Your task to perform on an android device: Go to Google maps Image 0: 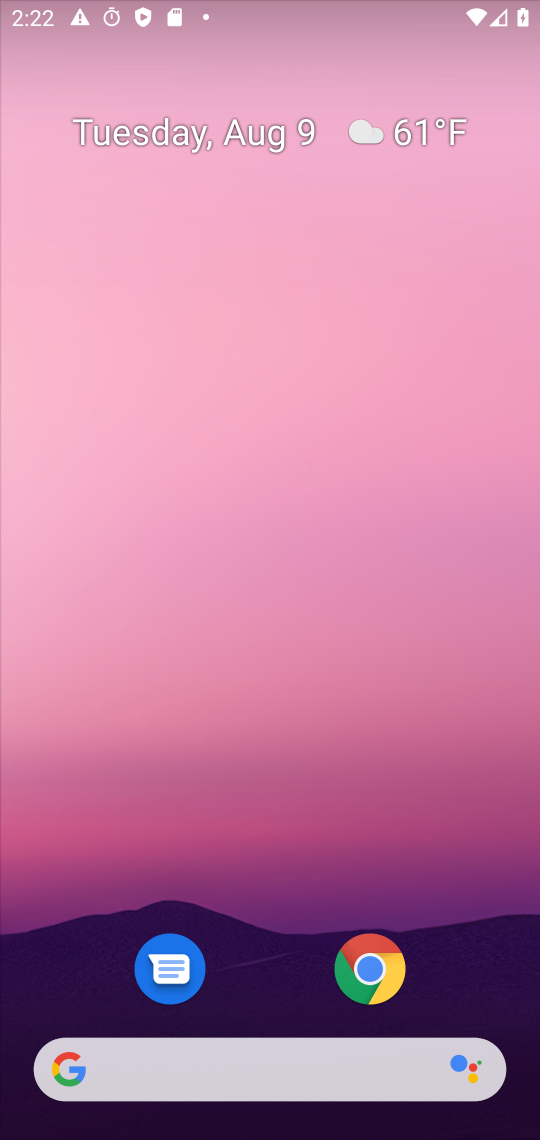
Step 0: press home button
Your task to perform on an android device: Go to Google maps Image 1: 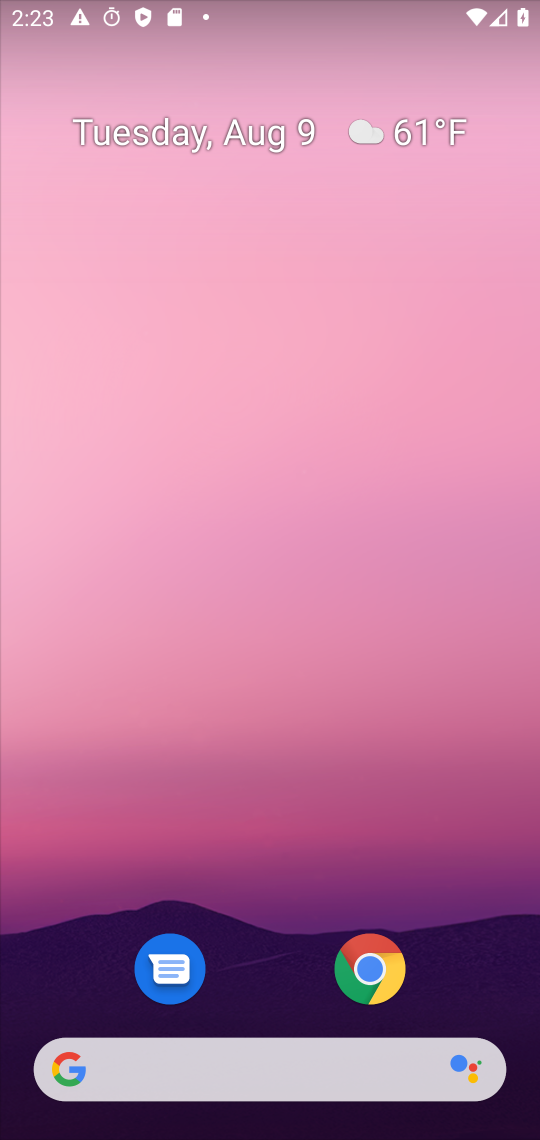
Step 1: drag from (369, 1057) to (271, 406)
Your task to perform on an android device: Go to Google maps Image 2: 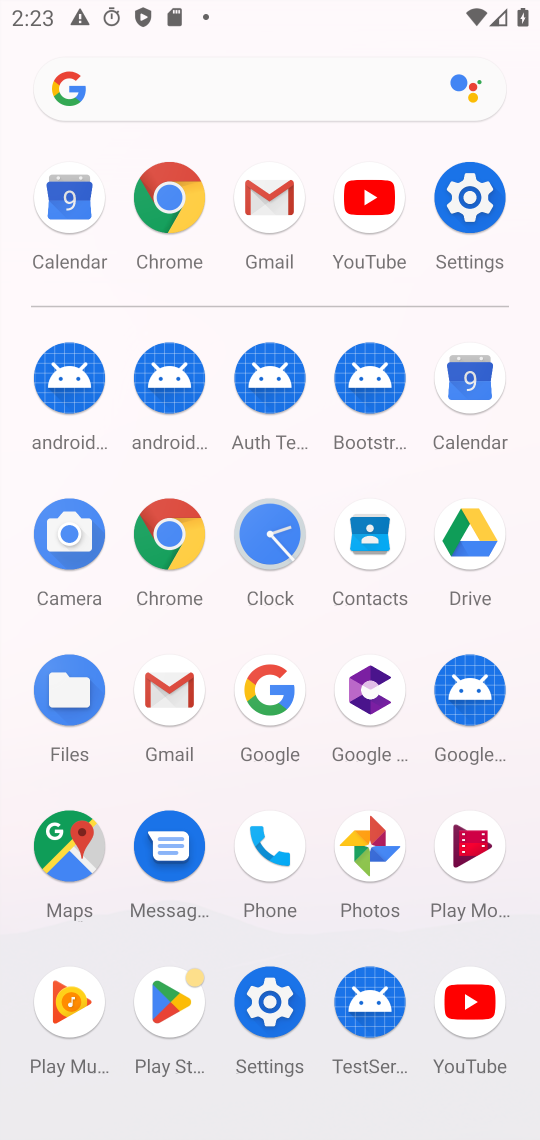
Step 2: click (32, 798)
Your task to perform on an android device: Go to Google maps Image 3: 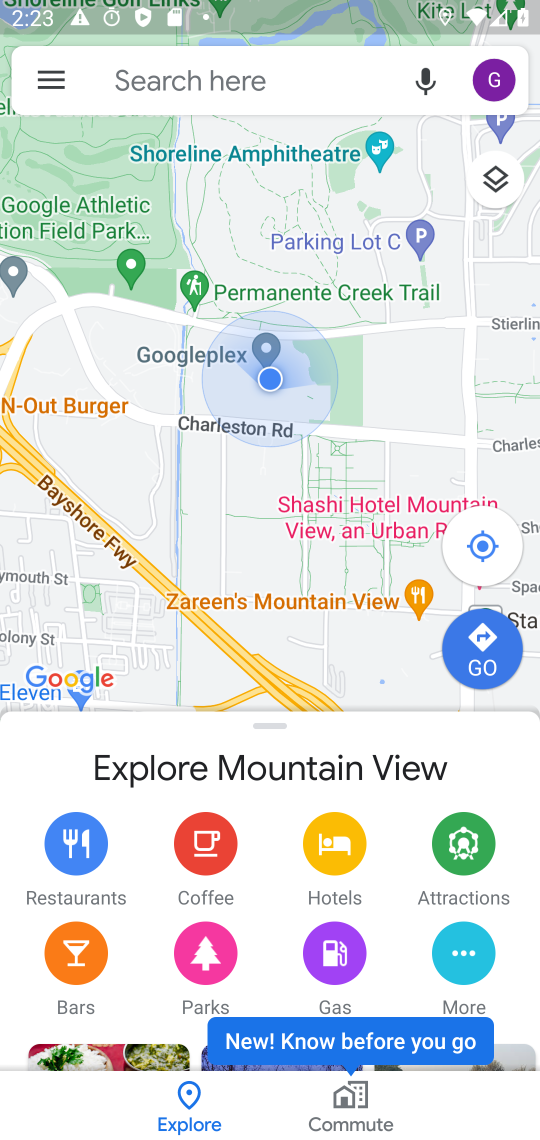
Step 3: click (479, 541)
Your task to perform on an android device: Go to Google maps Image 4: 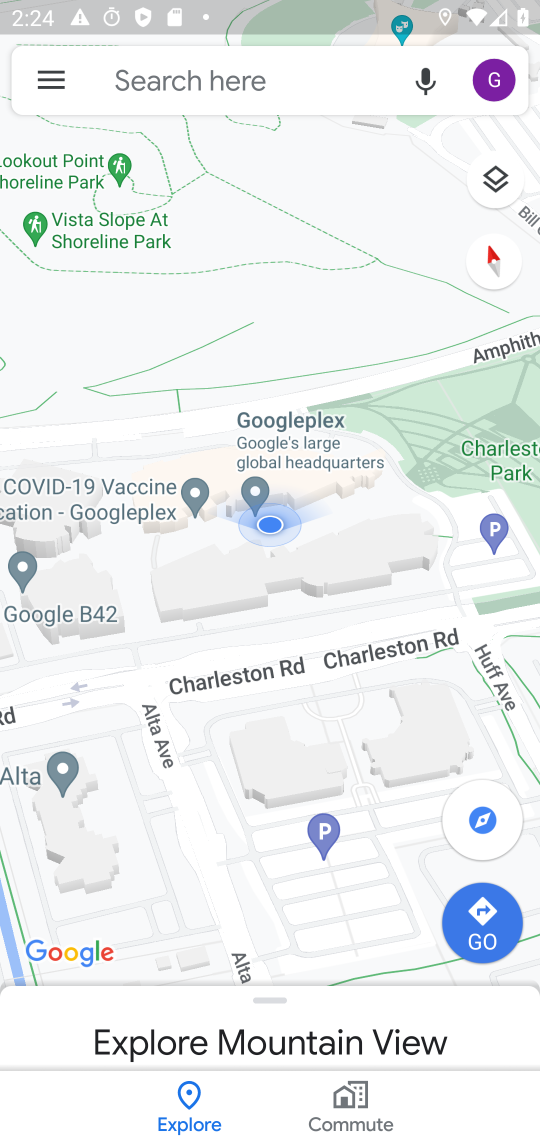
Step 4: task complete